Your task to perform on an android device: Go to Google maps Image 0: 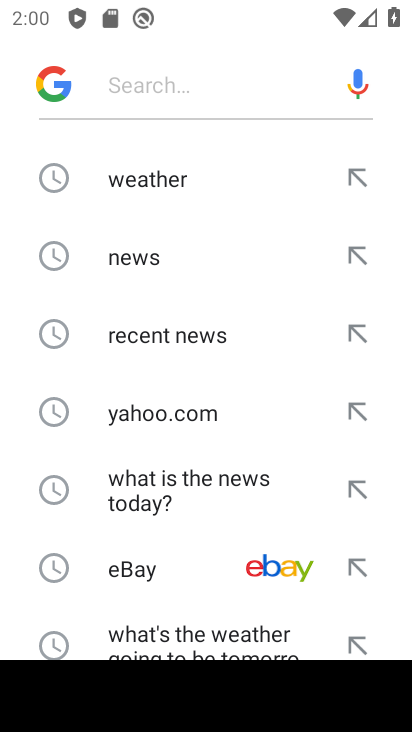
Step 0: press home button
Your task to perform on an android device: Go to Google maps Image 1: 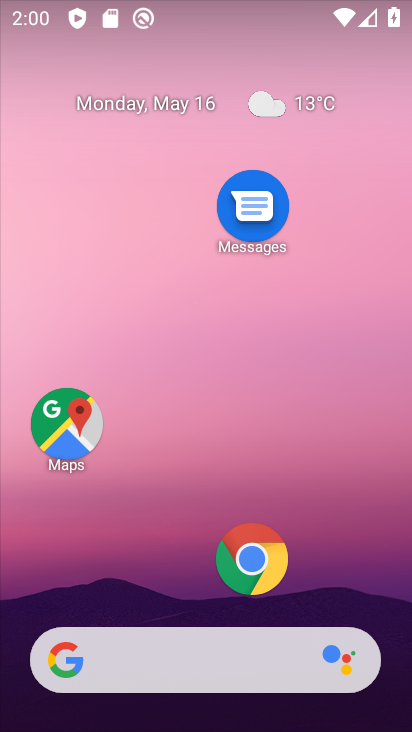
Step 1: click (64, 421)
Your task to perform on an android device: Go to Google maps Image 2: 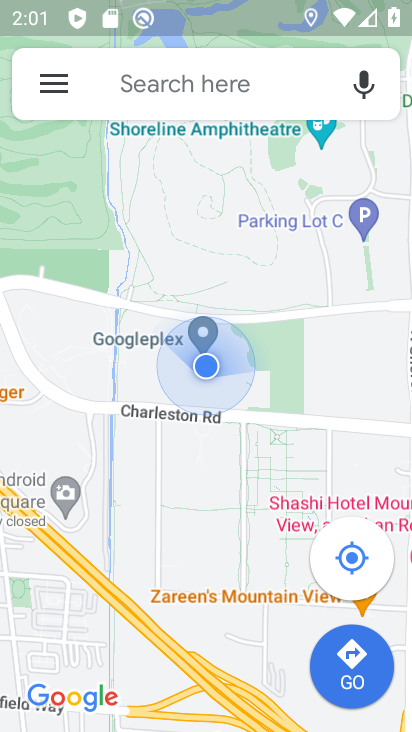
Step 2: task complete